Your task to perform on an android device: see tabs open on other devices in the chrome app Image 0: 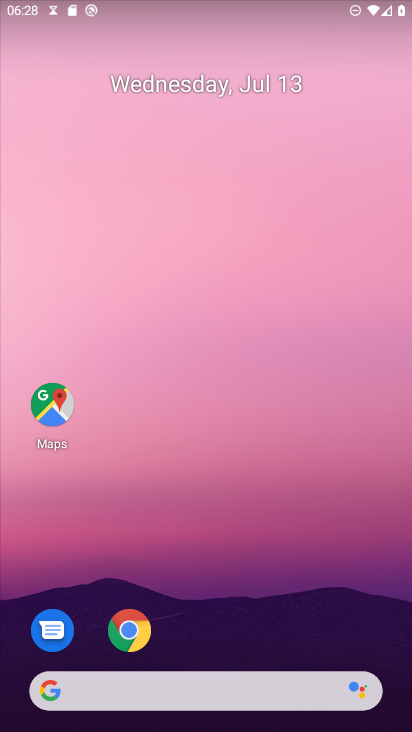
Step 0: drag from (301, 695) to (382, 7)
Your task to perform on an android device: see tabs open on other devices in the chrome app Image 1: 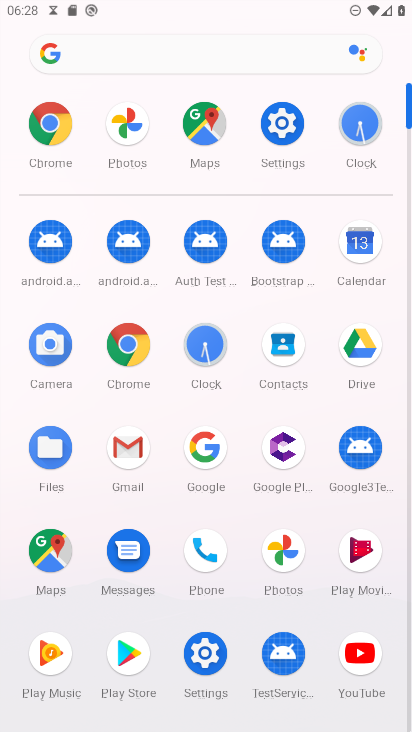
Step 1: click (138, 352)
Your task to perform on an android device: see tabs open on other devices in the chrome app Image 2: 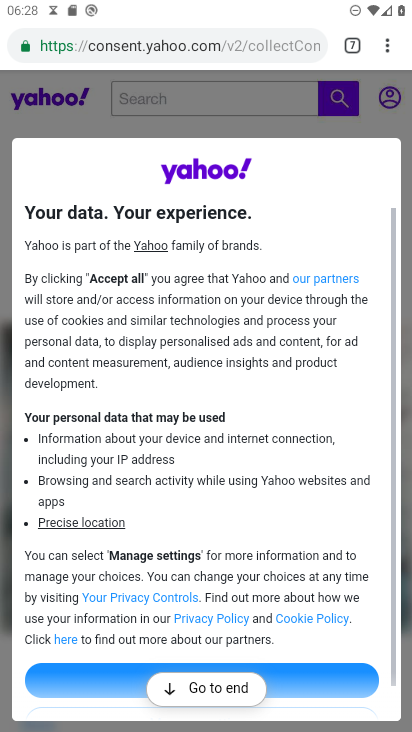
Step 2: task complete